Your task to perform on an android device: turn on priority inbox in the gmail app Image 0: 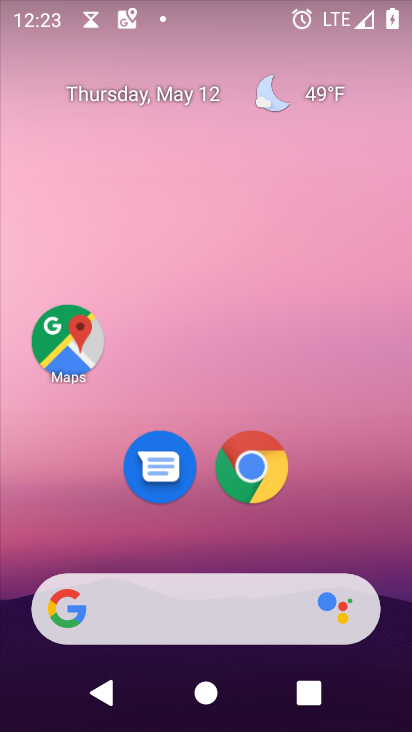
Step 0: drag from (156, 594) to (278, 151)
Your task to perform on an android device: turn on priority inbox in the gmail app Image 1: 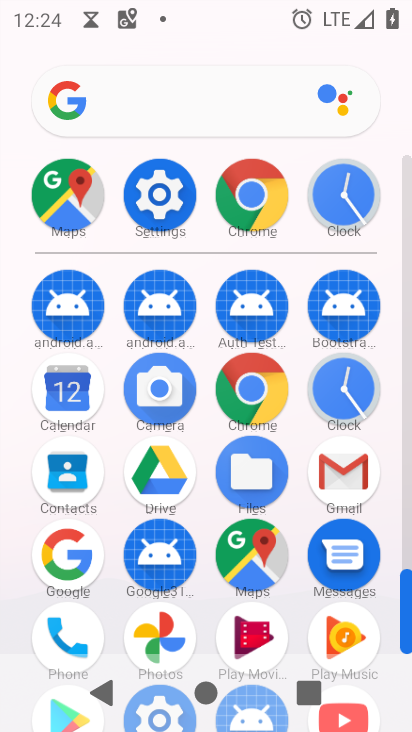
Step 1: click (350, 478)
Your task to perform on an android device: turn on priority inbox in the gmail app Image 2: 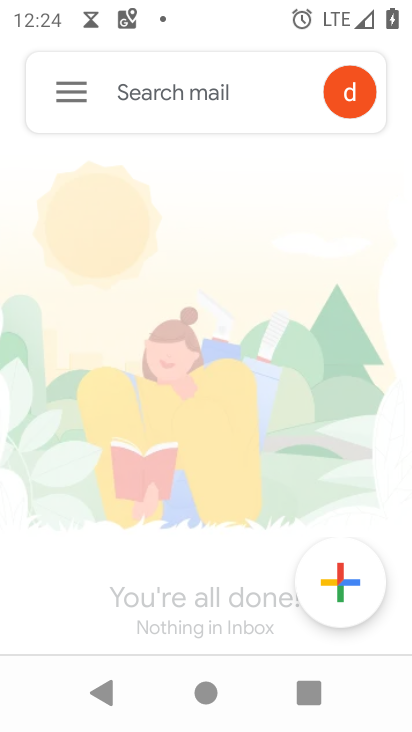
Step 2: click (87, 92)
Your task to perform on an android device: turn on priority inbox in the gmail app Image 3: 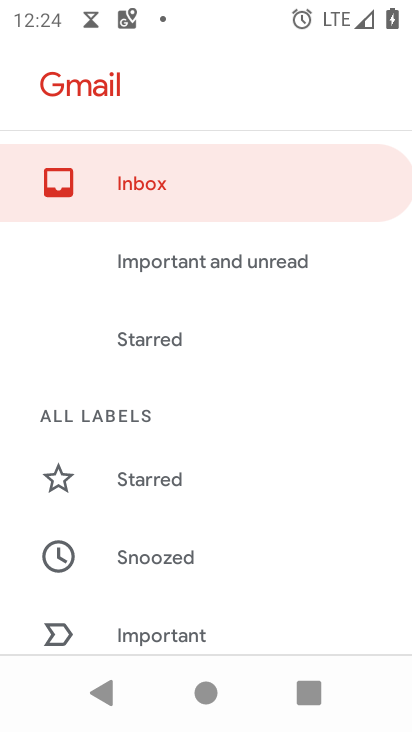
Step 3: drag from (215, 559) to (291, 190)
Your task to perform on an android device: turn on priority inbox in the gmail app Image 4: 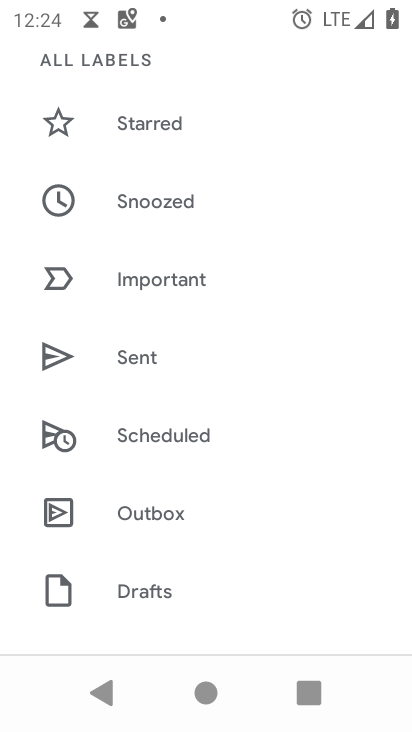
Step 4: drag from (183, 575) to (331, 100)
Your task to perform on an android device: turn on priority inbox in the gmail app Image 5: 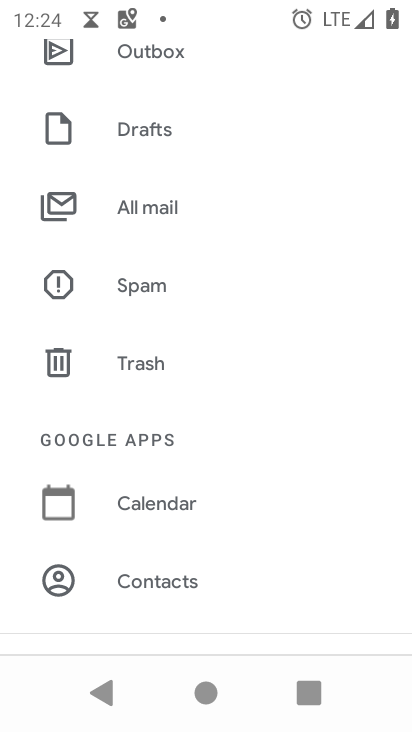
Step 5: drag from (206, 554) to (322, 208)
Your task to perform on an android device: turn on priority inbox in the gmail app Image 6: 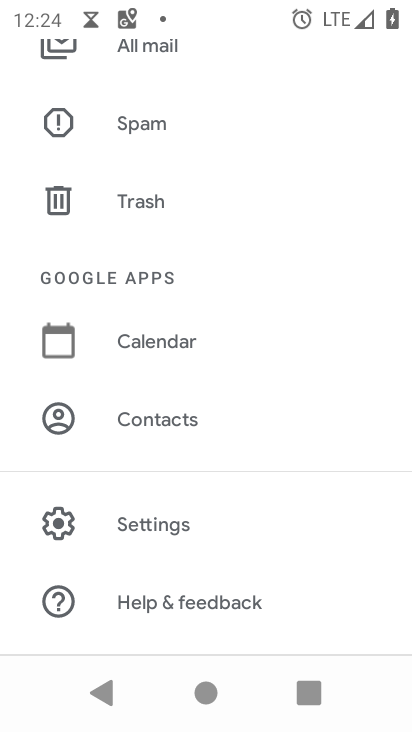
Step 6: click (174, 525)
Your task to perform on an android device: turn on priority inbox in the gmail app Image 7: 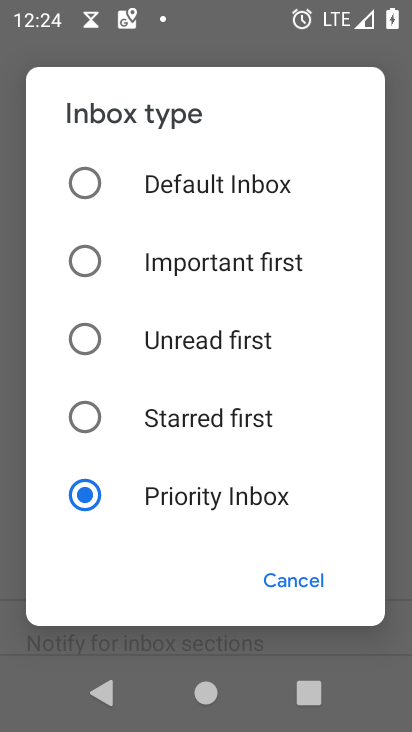
Step 7: task complete